Your task to perform on an android device: turn on wifi Image 0: 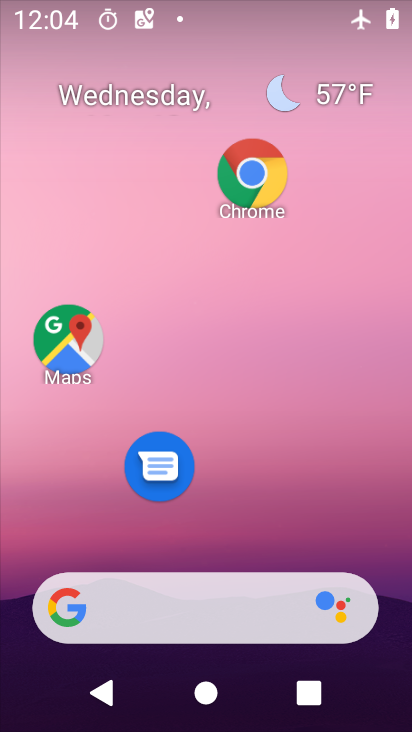
Step 0: click (185, 62)
Your task to perform on an android device: turn on wifi Image 1: 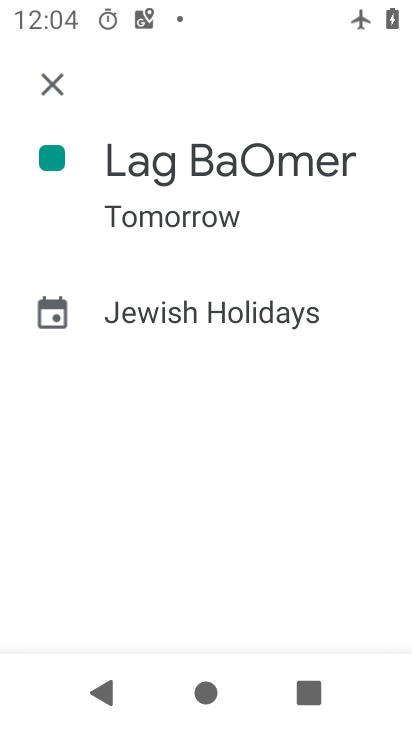
Step 1: click (49, 84)
Your task to perform on an android device: turn on wifi Image 2: 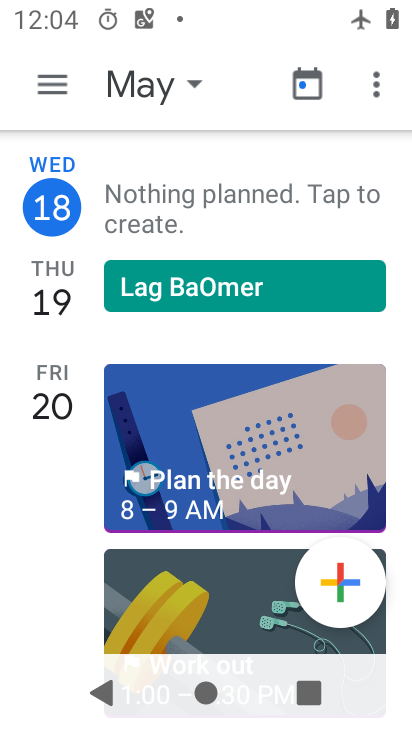
Step 2: press home button
Your task to perform on an android device: turn on wifi Image 3: 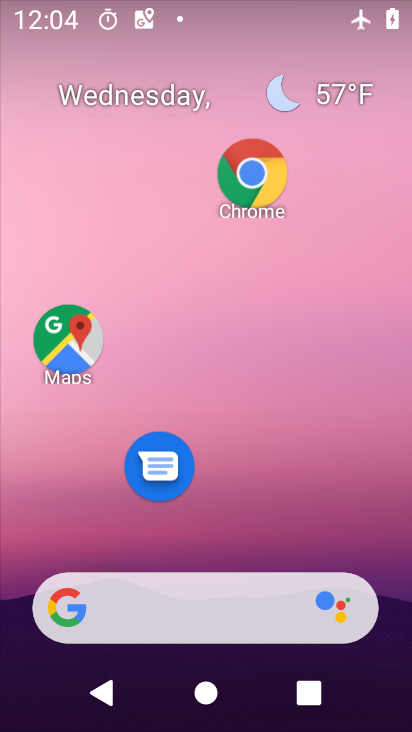
Step 3: drag from (189, 575) to (180, 12)
Your task to perform on an android device: turn on wifi Image 4: 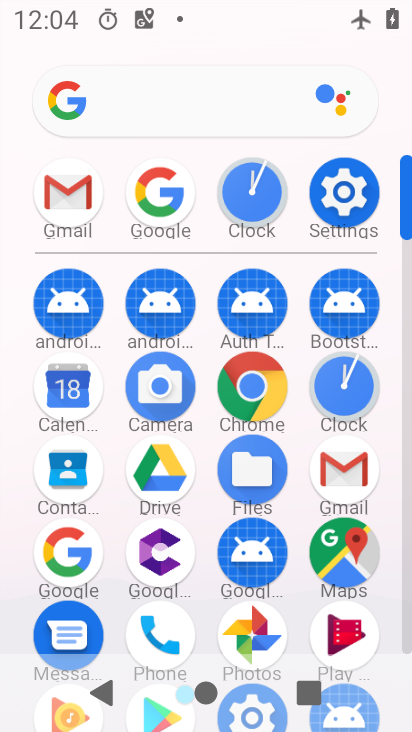
Step 4: click (346, 202)
Your task to perform on an android device: turn on wifi Image 5: 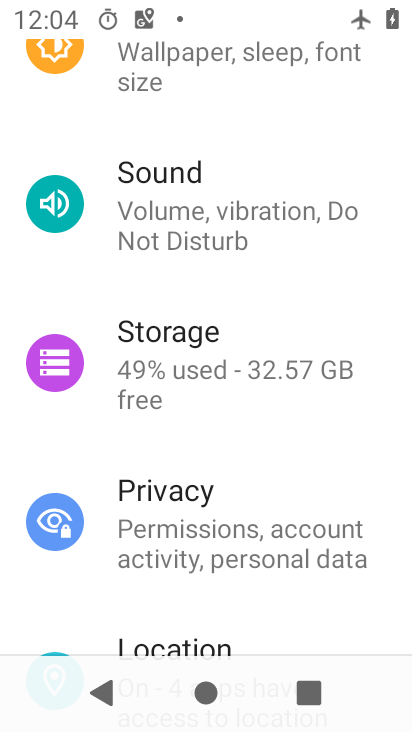
Step 5: drag from (213, 92) to (209, 530)
Your task to perform on an android device: turn on wifi Image 6: 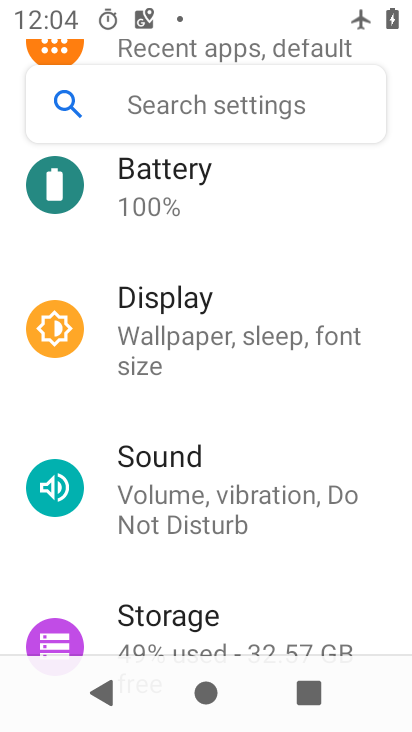
Step 6: drag from (257, 170) to (231, 598)
Your task to perform on an android device: turn on wifi Image 7: 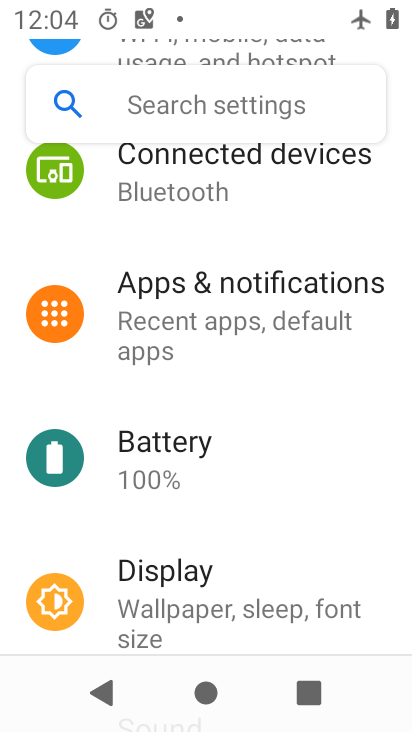
Step 7: drag from (240, 169) to (247, 515)
Your task to perform on an android device: turn on wifi Image 8: 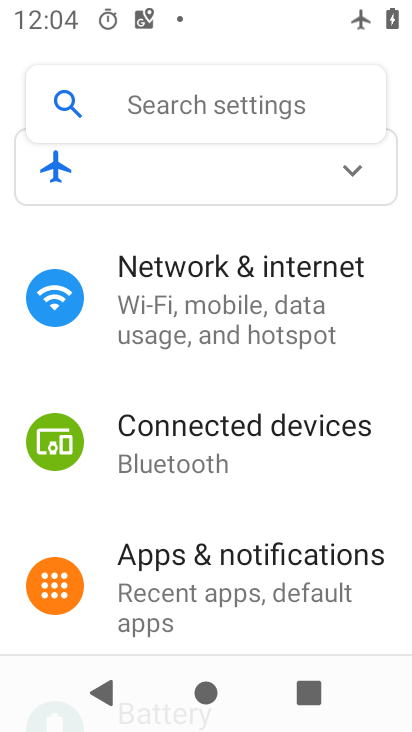
Step 8: click (209, 295)
Your task to perform on an android device: turn on wifi Image 9: 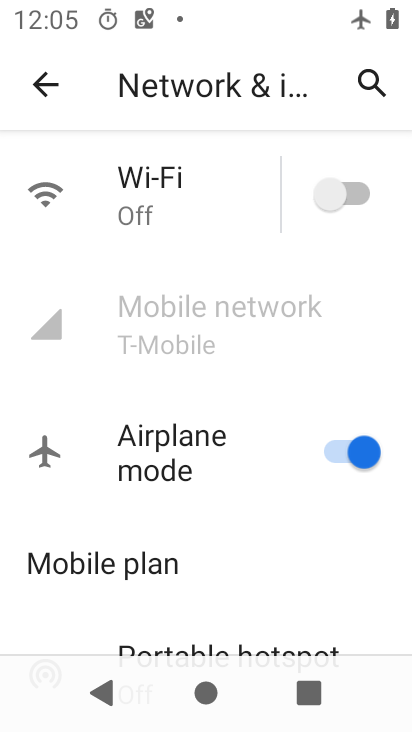
Step 9: click (354, 185)
Your task to perform on an android device: turn on wifi Image 10: 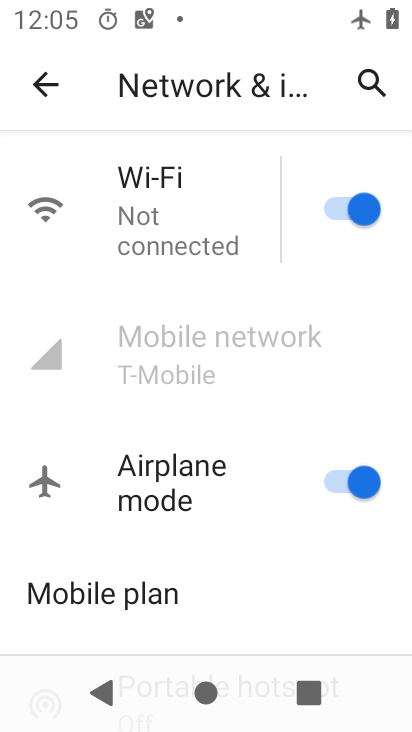
Step 10: task complete